Your task to perform on an android device: change the clock display to analog Image 0: 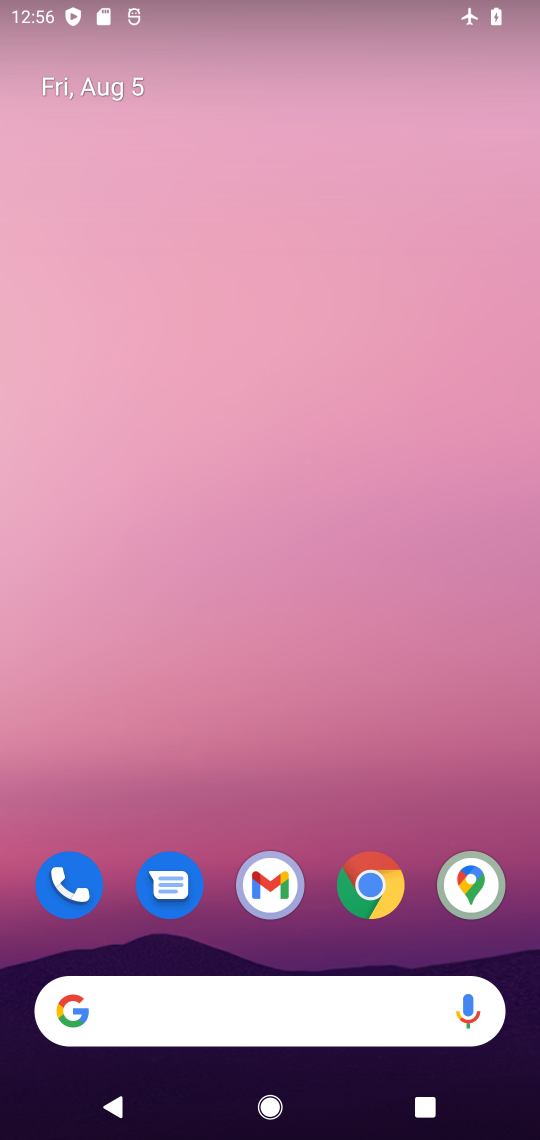
Step 0: drag from (292, 654) to (275, 234)
Your task to perform on an android device: change the clock display to analog Image 1: 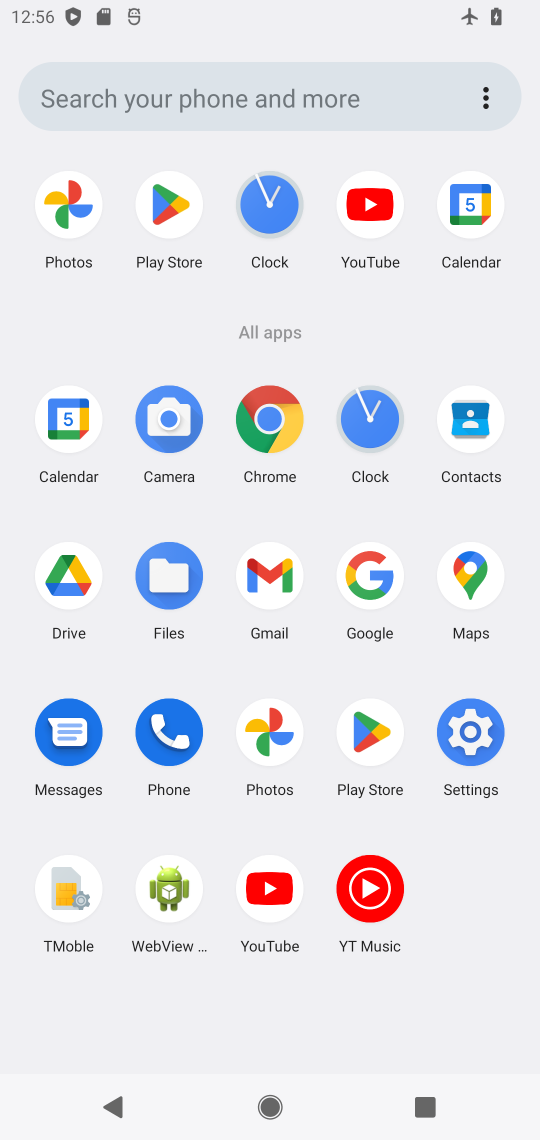
Step 1: click (377, 423)
Your task to perform on an android device: change the clock display to analog Image 2: 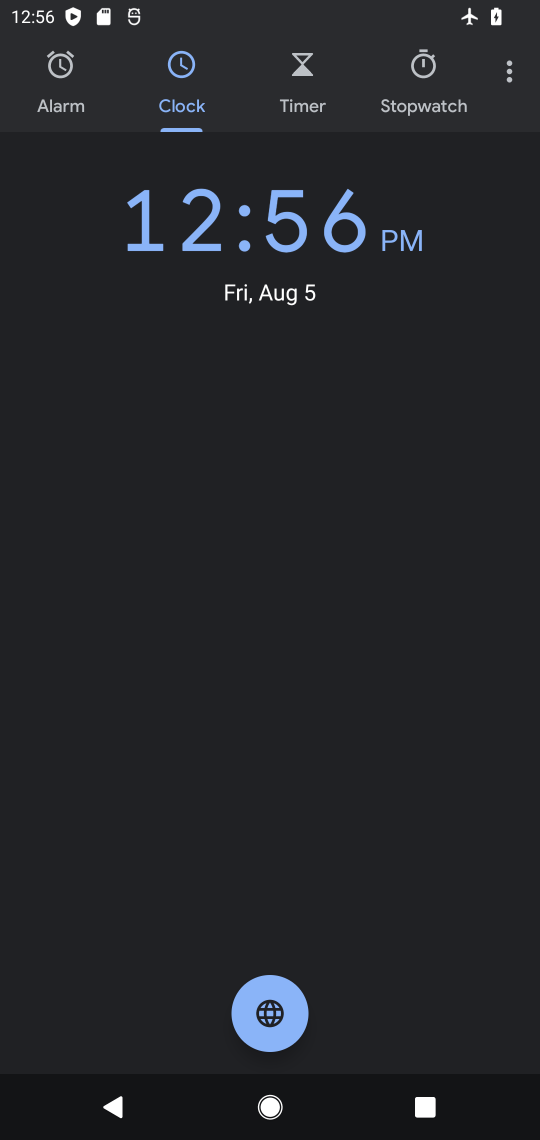
Step 2: click (518, 78)
Your task to perform on an android device: change the clock display to analog Image 3: 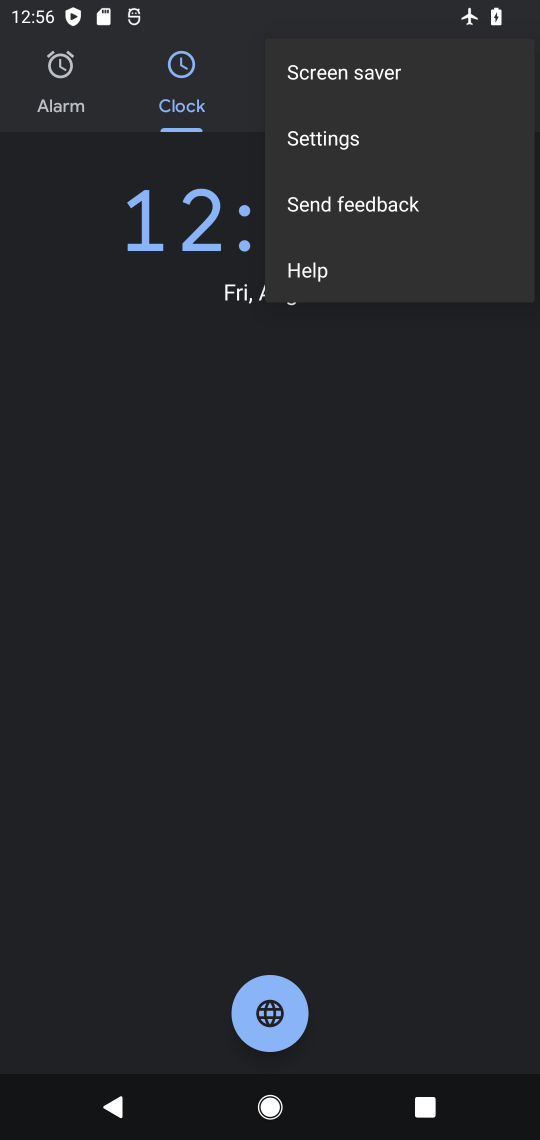
Step 3: click (354, 138)
Your task to perform on an android device: change the clock display to analog Image 4: 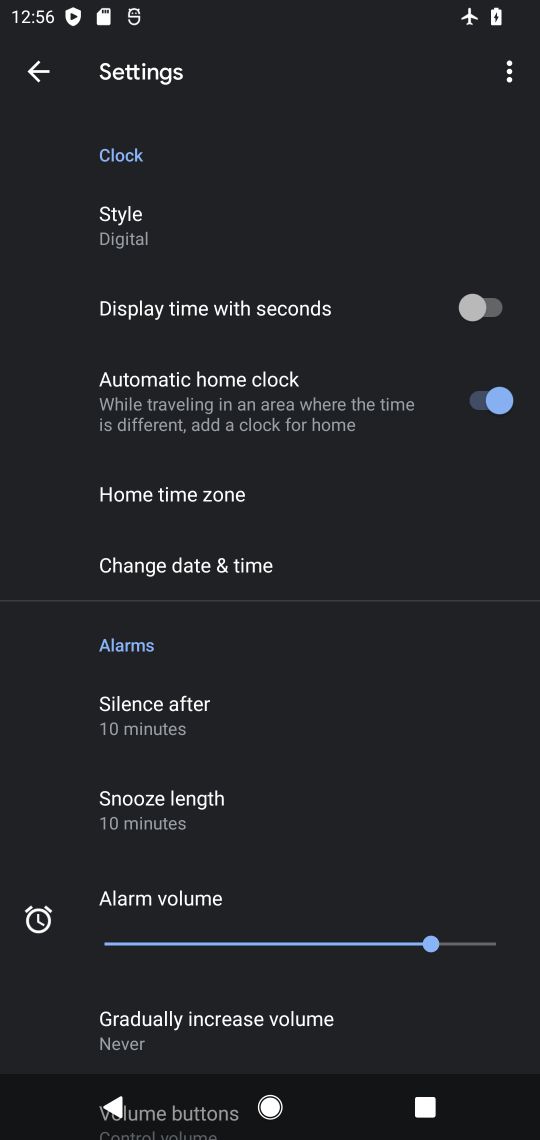
Step 4: click (116, 216)
Your task to perform on an android device: change the clock display to analog Image 5: 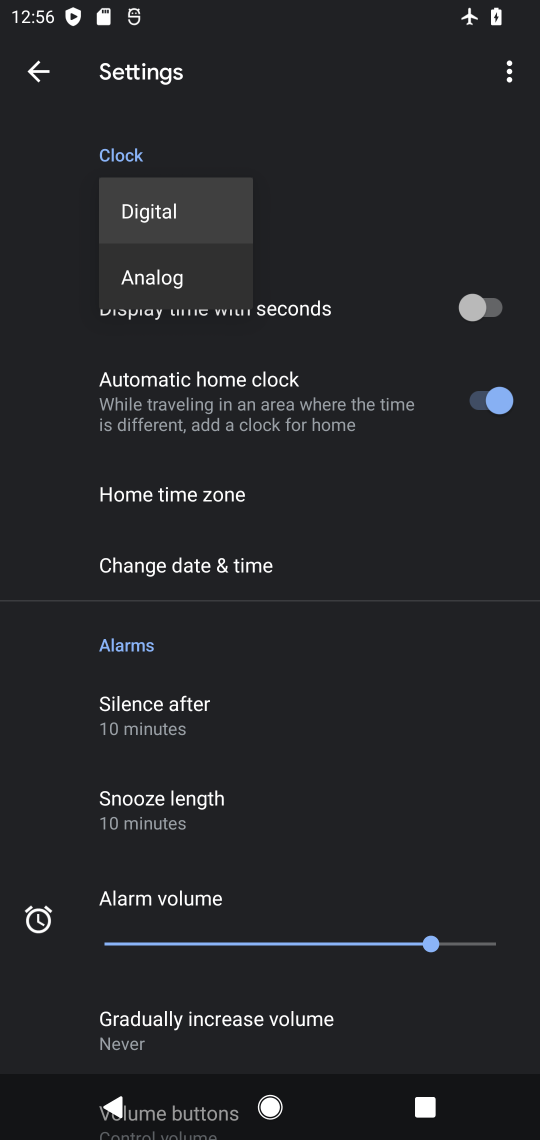
Step 5: click (129, 274)
Your task to perform on an android device: change the clock display to analog Image 6: 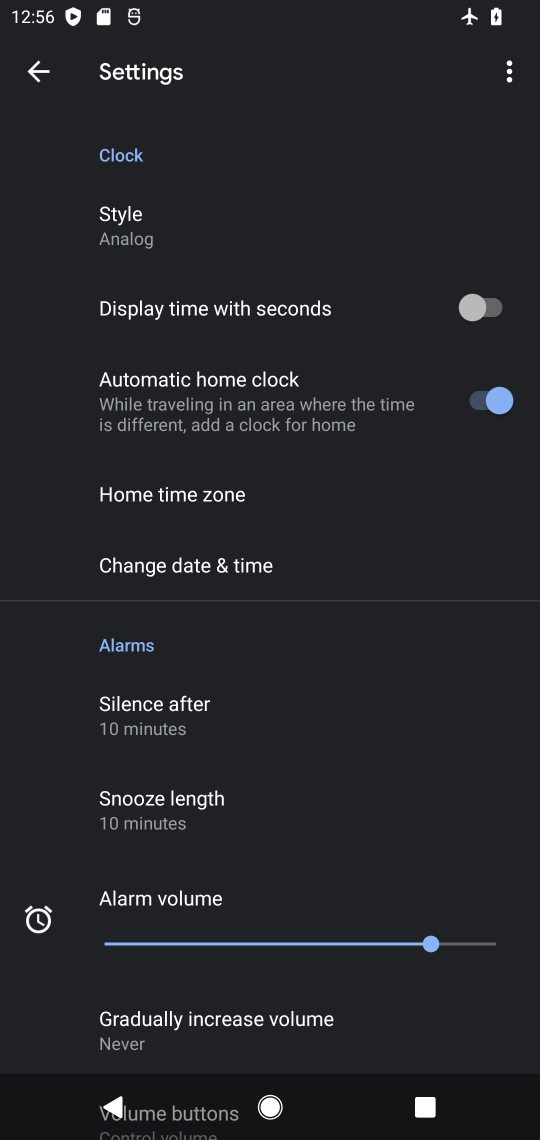
Step 6: task complete